Your task to perform on an android device: refresh tabs in the chrome app Image 0: 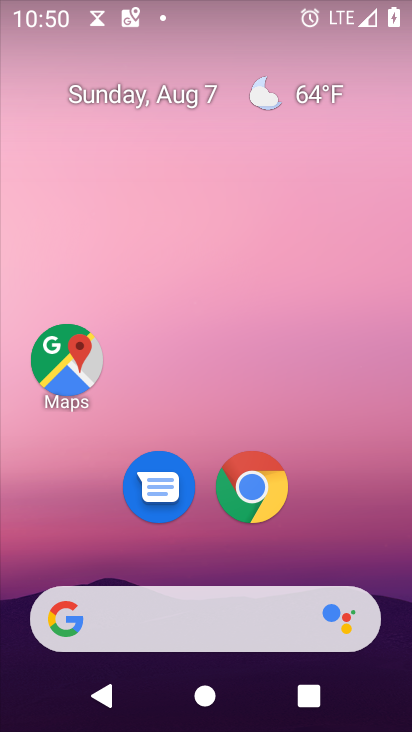
Step 0: click (249, 481)
Your task to perform on an android device: refresh tabs in the chrome app Image 1: 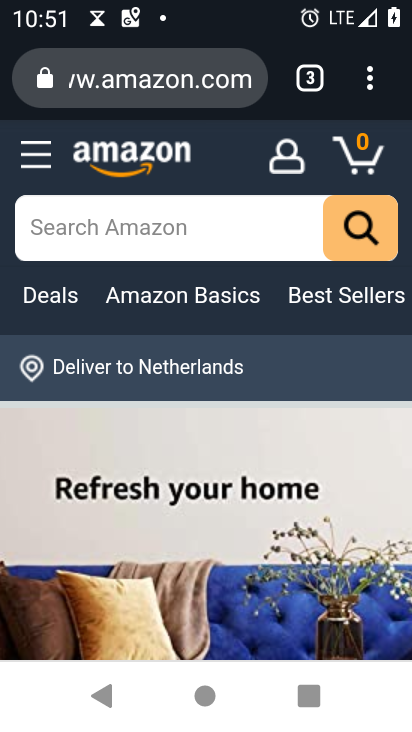
Step 1: click (372, 74)
Your task to perform on an android device: refresh tabs in the chrome app Image 2: 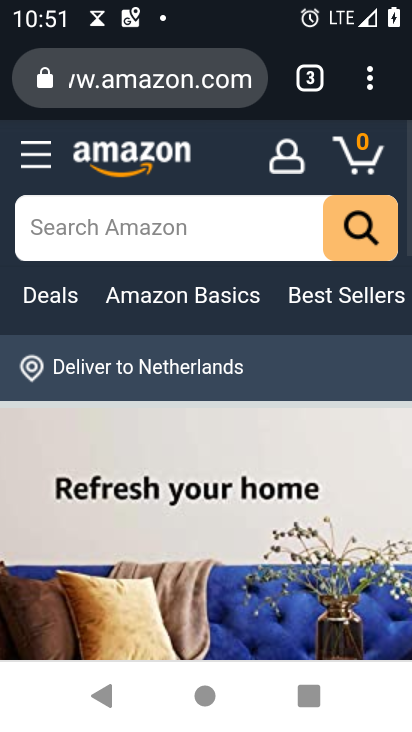
Step 2: click (372, 74)
Your task to perform on an android device: refresh tabs in the chrome app Image 3: 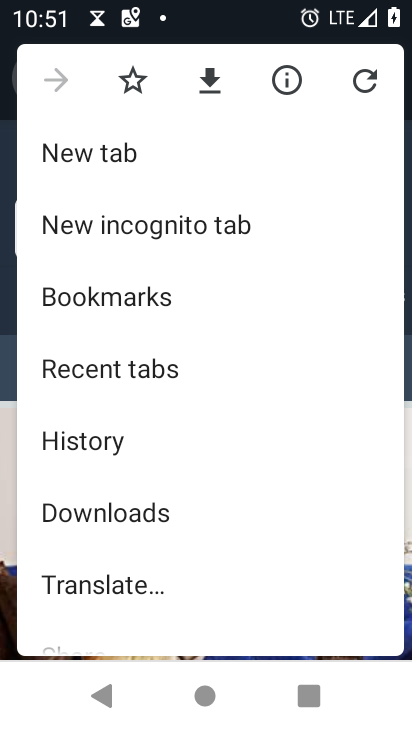
Step 3: click (372, 76)
Your task to perform on an android device: refresh tabs in the chrome app Image 4: 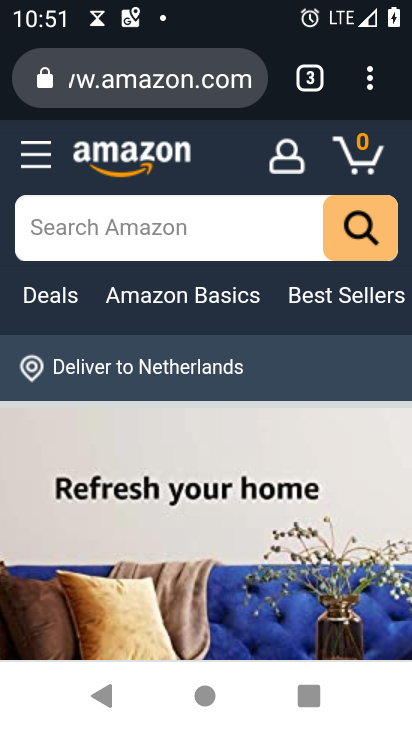
Step 4: task complete